Your task to perform on an android device: Open Chrome and go to the settings page Image 0: 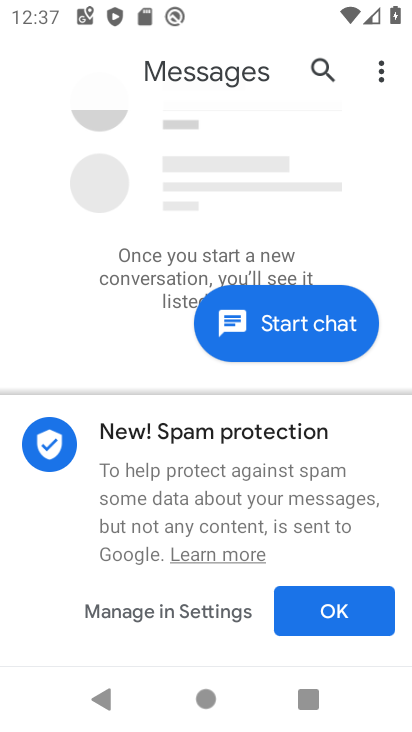
Step 0: press home button
Your task to perform on an android device: Open Chrome and go to the settings page Image 1: 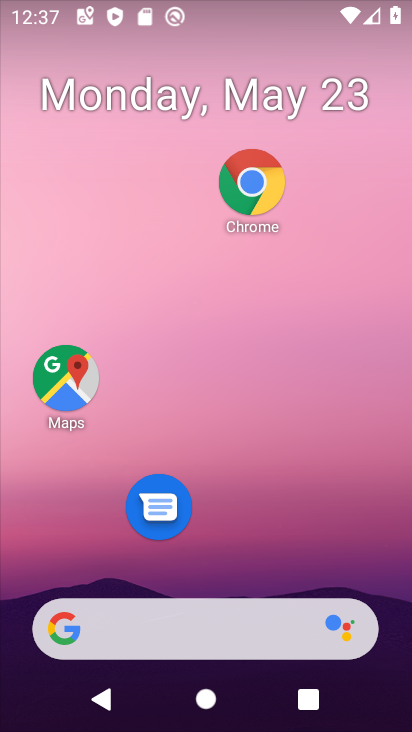
Step 1: click (245, 174)
Your task to perform on an android device: Open Chrome and go to the settings page Image 2: 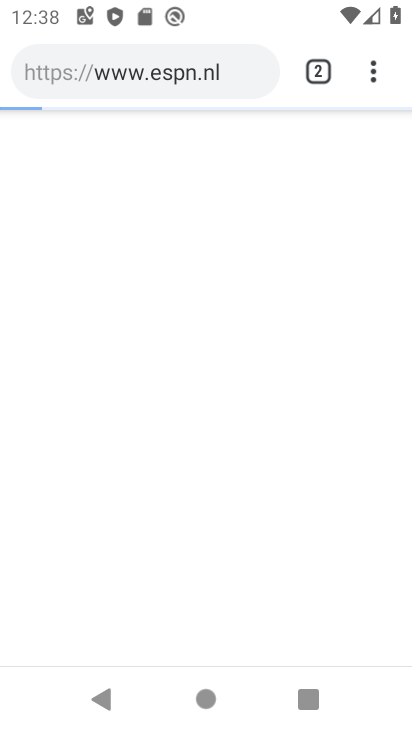
Step 2: click (372, 74)
Your task to perform on an android device: Open Chrome and go to the settings page Image 3: 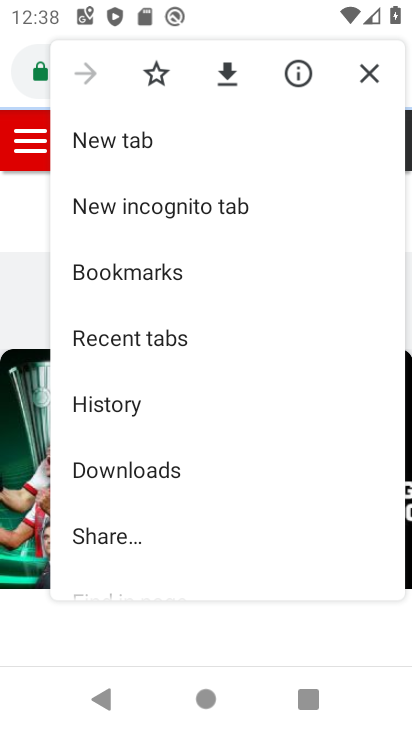
Step 3: drag from (212, 554) to (285, 94)
Your task to perform on an android device: Open Chrome and go to the settings page Image 4: 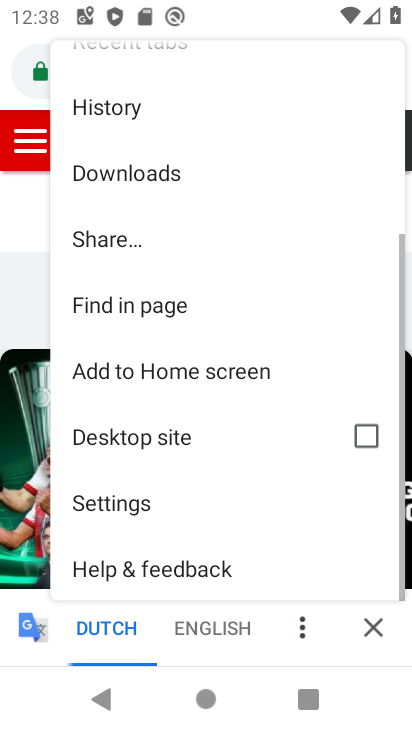
Step 4: click (113, 505)
Your task to perform on an android device: Open Chrome and go to the settings page Image 5: 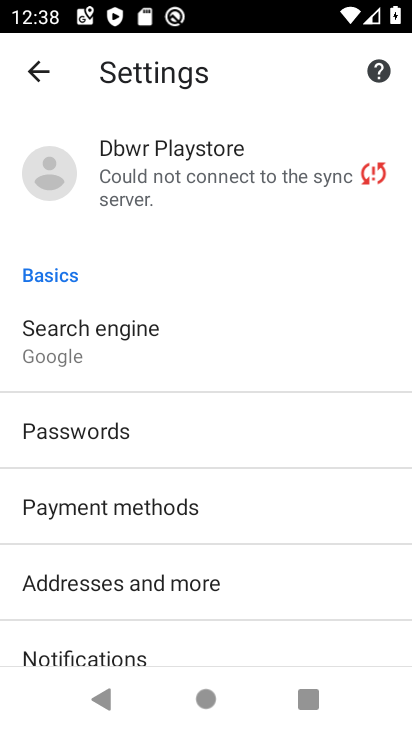
Step 5: task complete